Your task to perform on an android device: What's on my calendar tomorrow? Image 0: 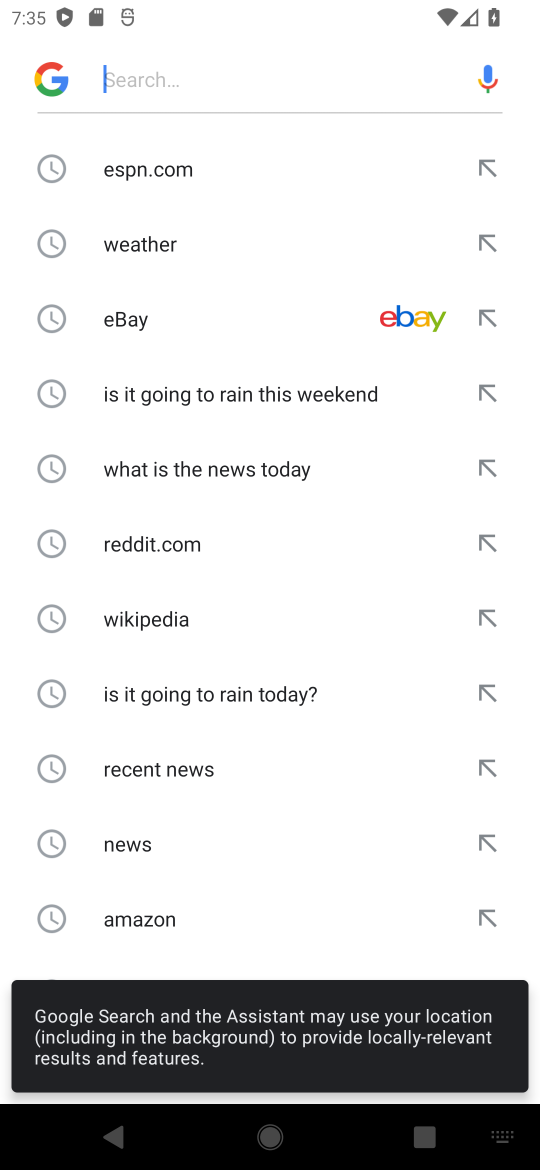
Step 0: press home button
Your task to perform on an android device: What's on my calendar tomorrow? Image 1: 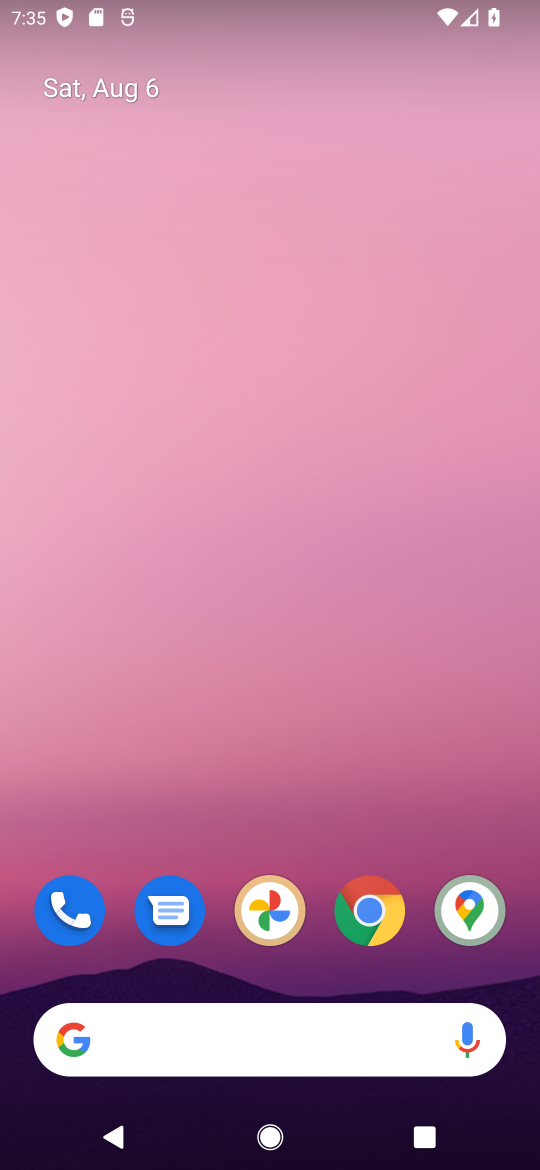
Step 1: drag from (461, 711) to (427, 83)
Your task to perform on an android device: What's on my calendar tomorrow? Image 2: 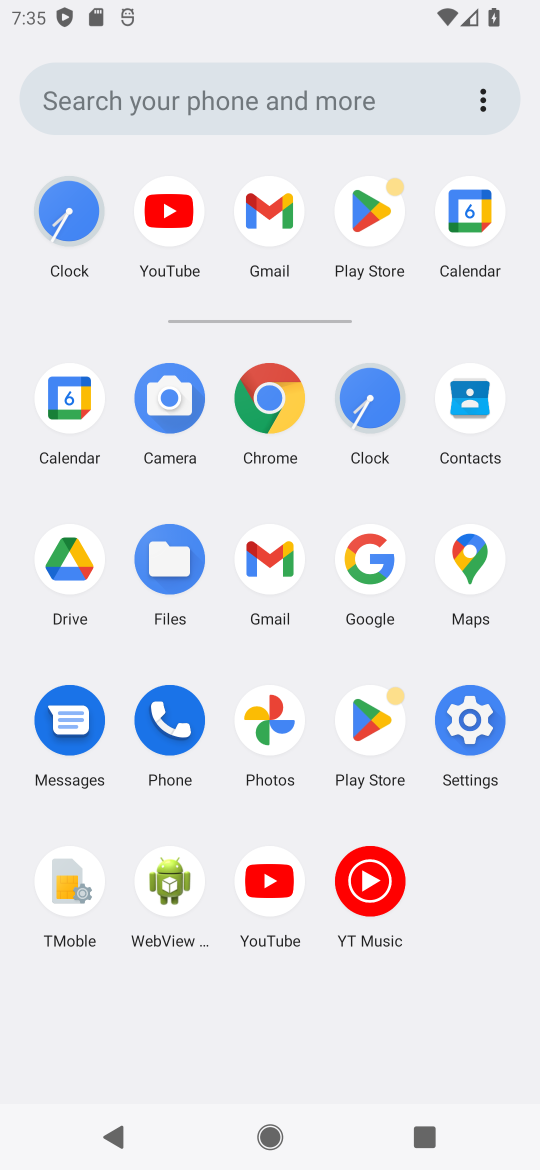
Step 2: click (67, 424)
Your task to perform on an android device: What's on my calendar tomorrow? Image 3: 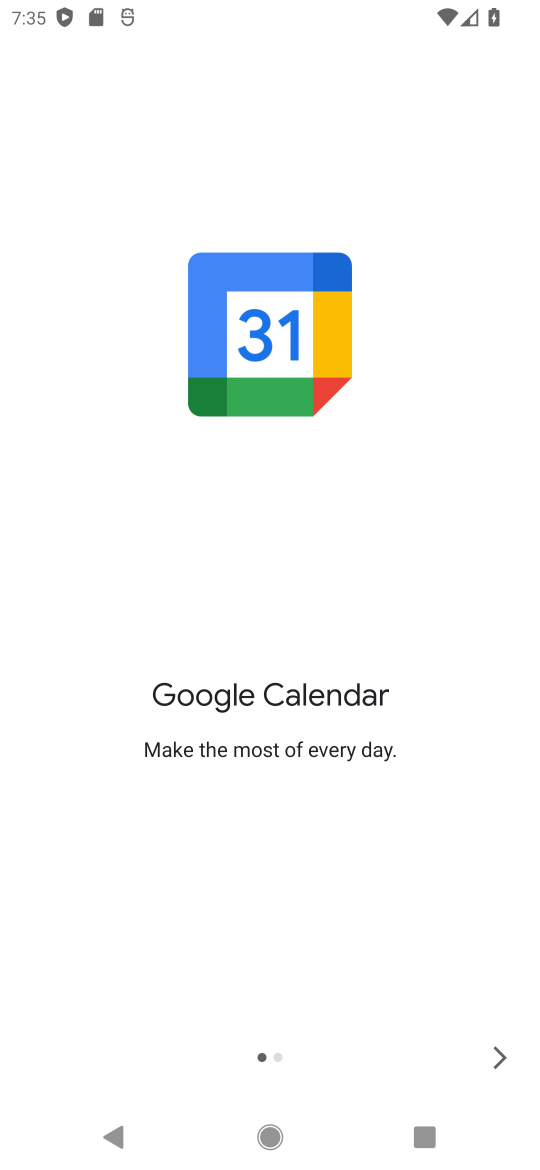
Step 3: click (475, 1062)
Your task to perform on an android device: What's on my calendar tomorrow? Image 4: 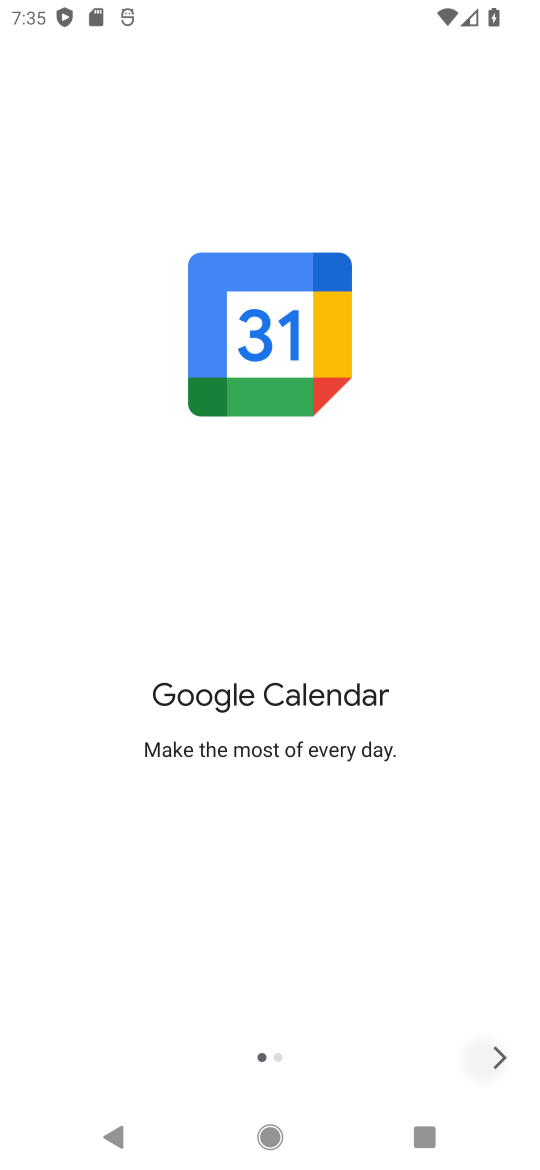
Step 4: click (481, 1061)
Your task to perform on an android device: What's on my calendar tomorrow? Image 5: 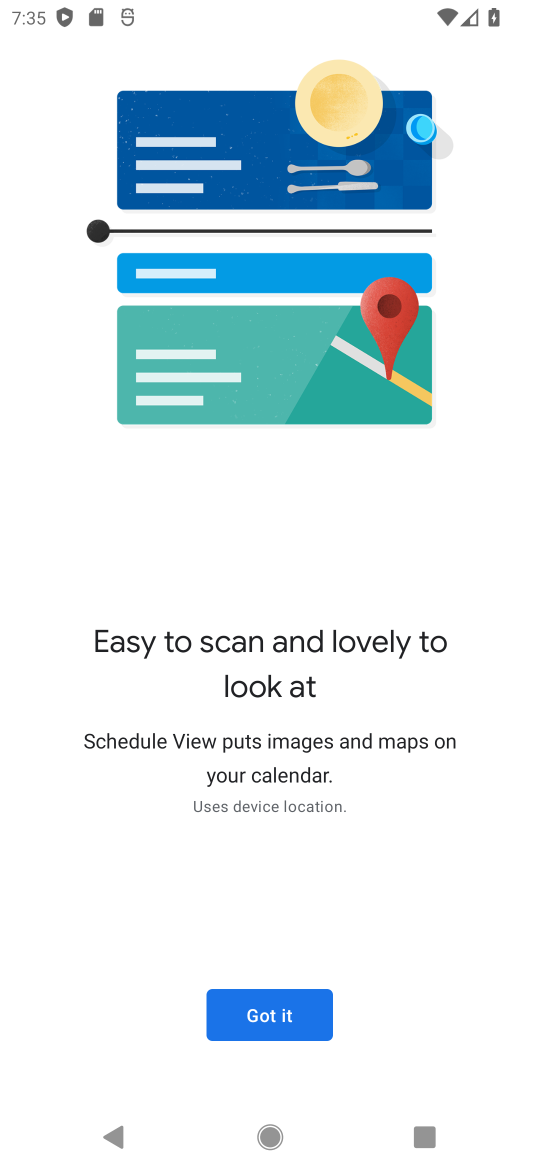
Step 5: drag from (481, 1061) to (285, 1000)
Your task to perform on an android device: What's on my calendar tomorrow? Image 6: 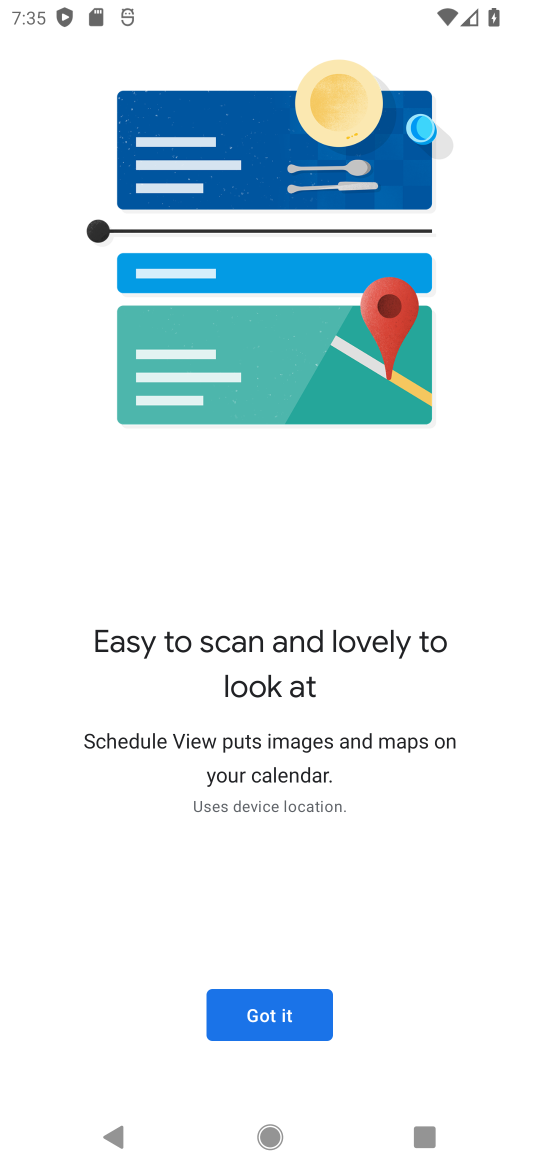
Step 6: click (285, 1008)
Your task to perform on an android device: What's on my calendar tomorrow? Image 7: 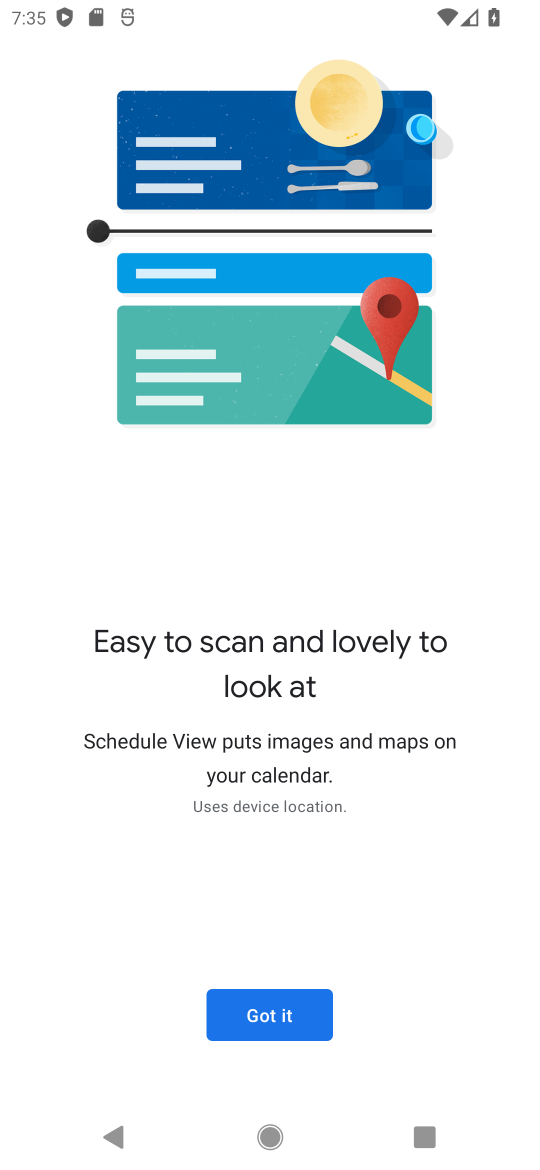
Step 7: click (245, 992)
Your task to perform on an android device: What's on my calendar tomorrow? Image 8: 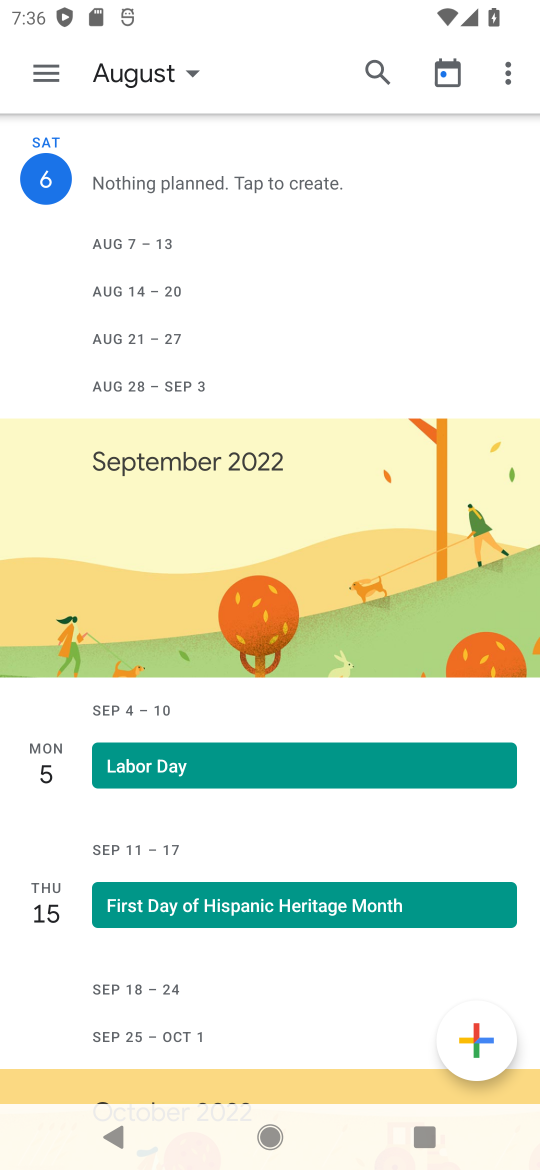
Step 8: click (180, 71)
Your task to perform on an android device: What's on my calendar tomorrow? Image 9: 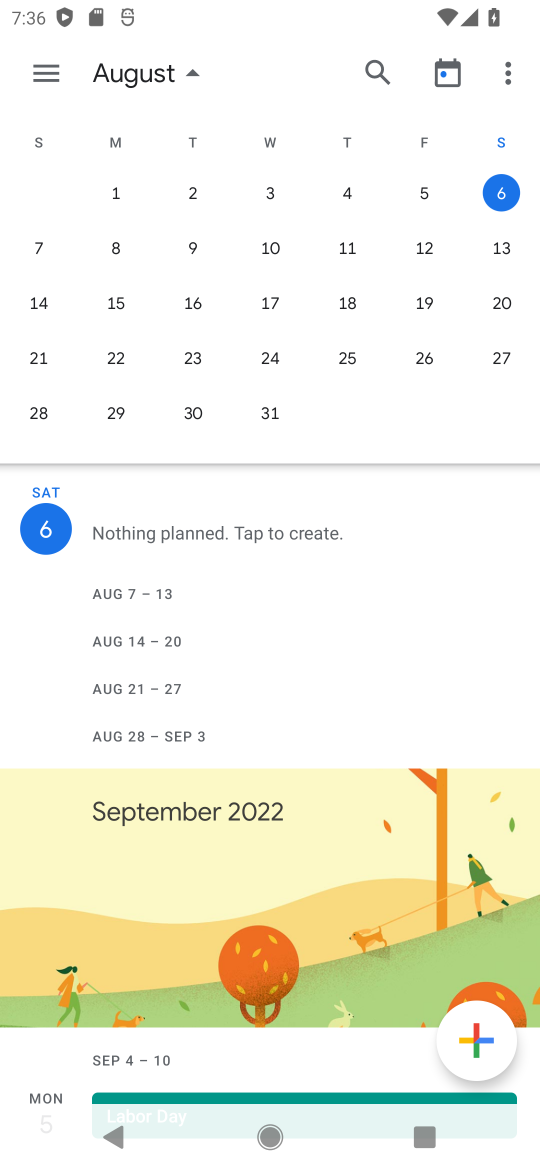
Step 9: click (35, 241)
Your task to perform on an android device: What's on my calendar tomorrow? Image 10: 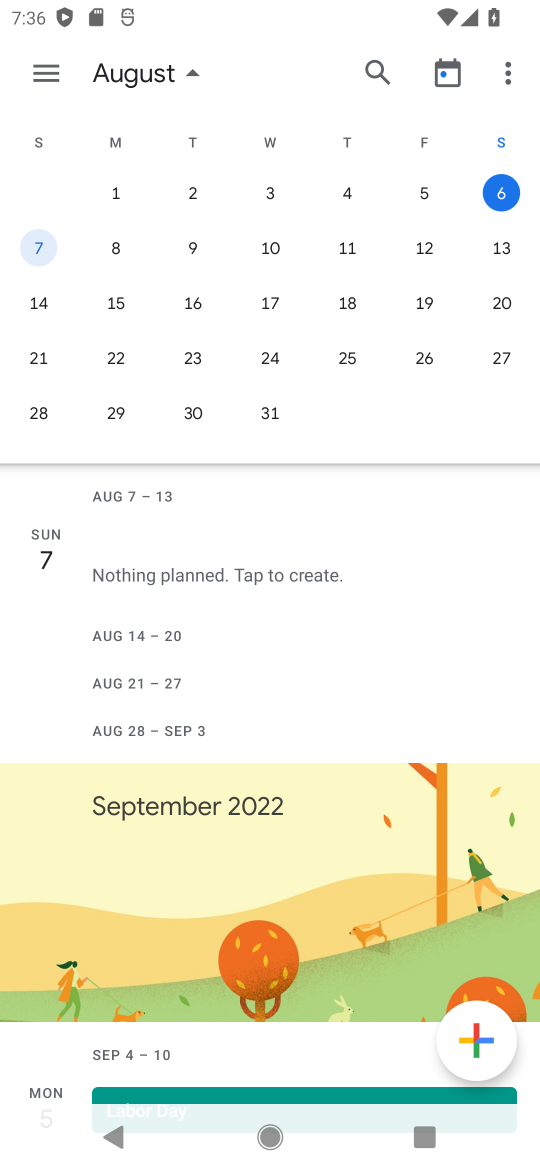
Step 10: task complete